Your task to perform on an android device: turn on priority inbox in the gmail app Image 0: 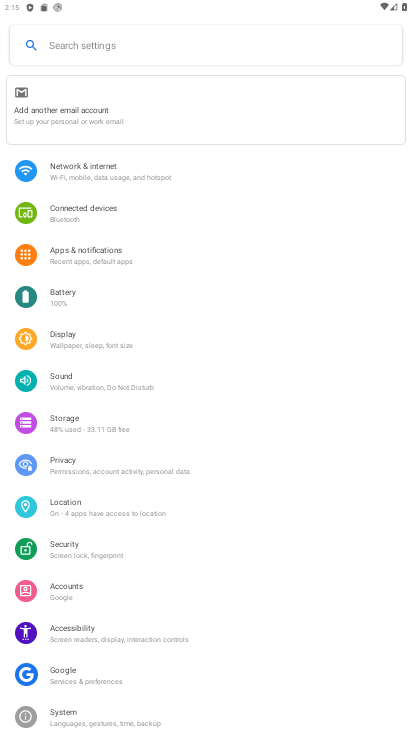
Step 0: press home button
Your task to perform on an android device: turn on priority inbox in the gmail app Image 1: 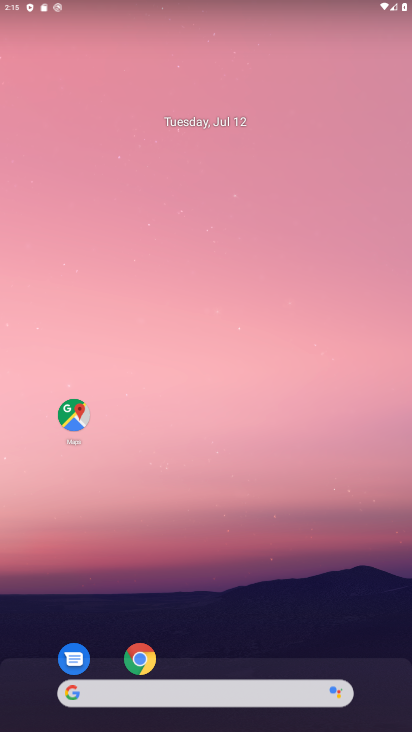
Step 1: drag from (194, 691) to (249, 428)
Your task to perform on an android device: turn on priority inbox in the gmail app Image 2: 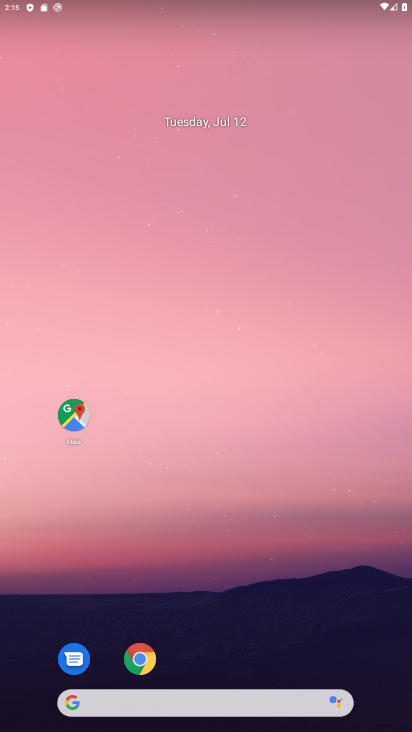
Step 2: drag from (221, 690) to (301, 63)
Your task to perform on an android device: turn on priority inbox in the gmail app Image 3: 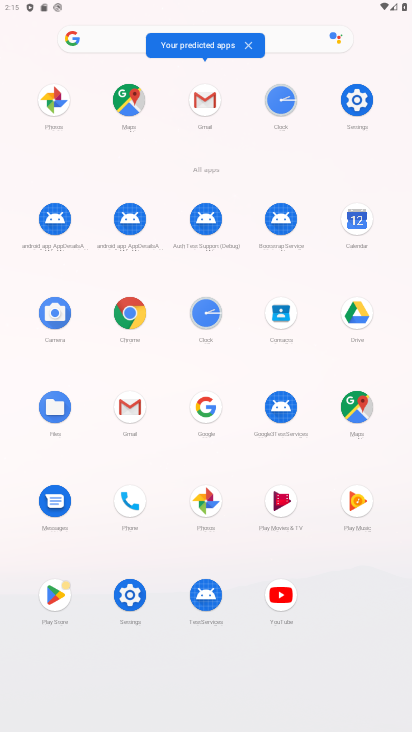
Step 3: click (211, 101)
Your task to perform on an android device: turn on priority inbox in the gmail app Image 4: 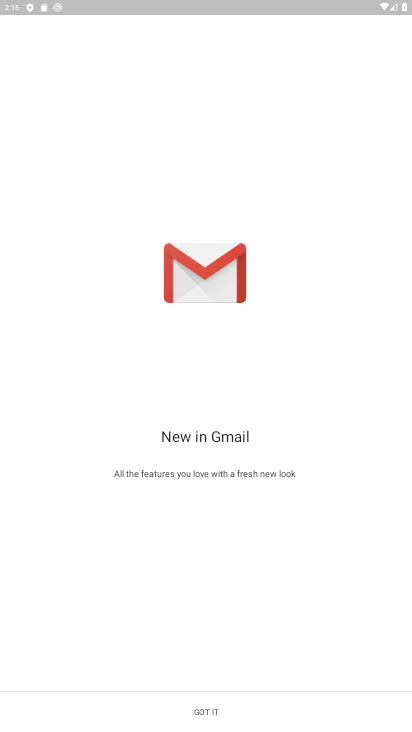
Step 4: click (203, 704)
Your task to perform on an android device: turn on priority inbox in the gmail app Image 5: 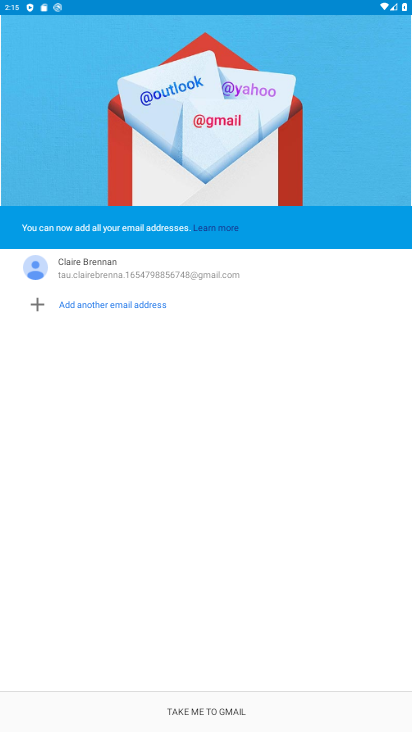
Step 5: click (216, 712)
Your task to perform on an android device: turn on priority inbox in the gmail app Image 6: 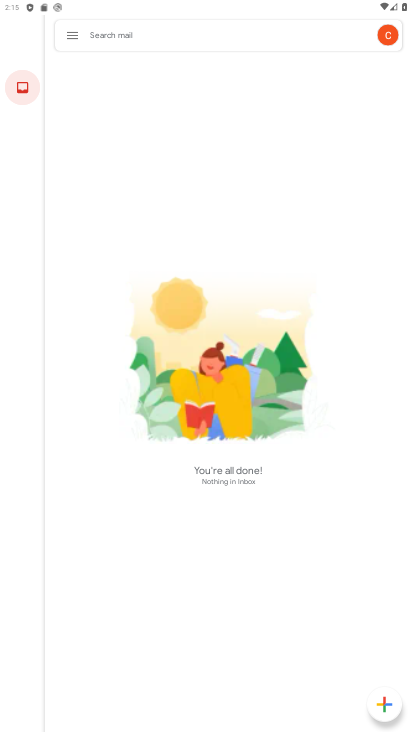
Step 6: click (74, 37)
Your task to perform on an android device: turn on priority inbox in the gmail app Image 7: 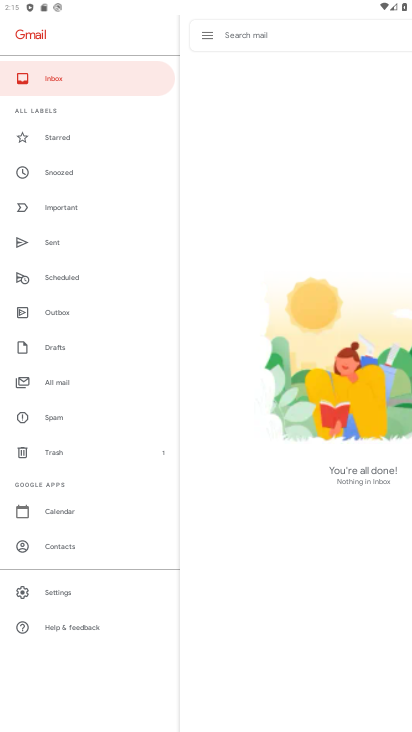
Step 7: click (57, 599)
Your task to perform on an android device: turn on priority inbox in the gmail app Image 8: 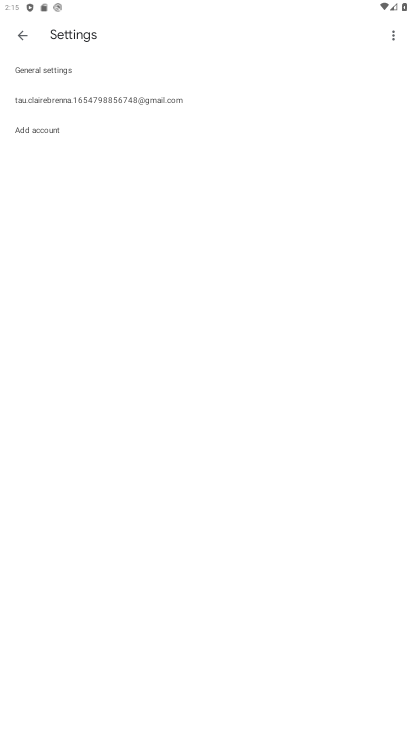
Step 8: click (148, 92)
Your task to perform on an android device: turn on priority inbox in the gmail app Image 9: 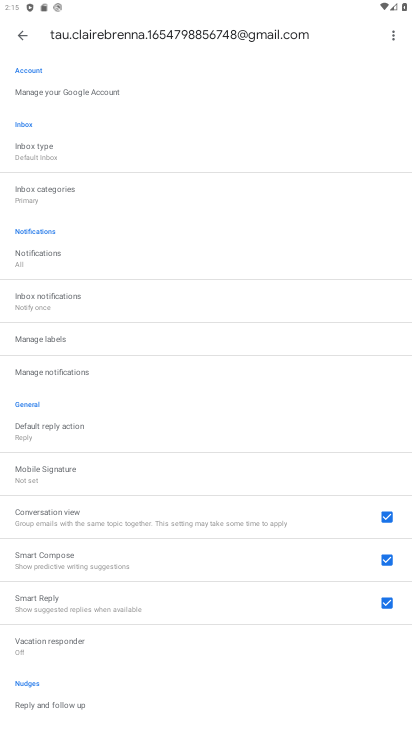
Step 9: click (43, 155)
Your task to perform on an android device: turn on priority inbox in the gmail app Image 10: 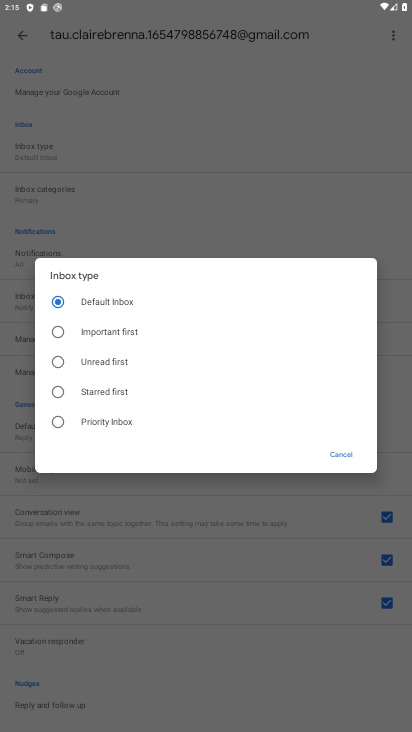
Step 10: click (130, 420)
Your task to perform on an android device: turn on priority inbox in the gmail app Image 11: 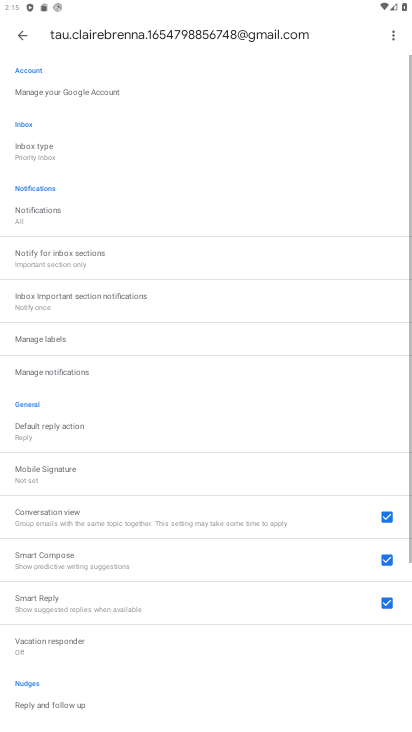
Step 11: task complete